Your task to perform on an android device: Open privacy settings Image 0: 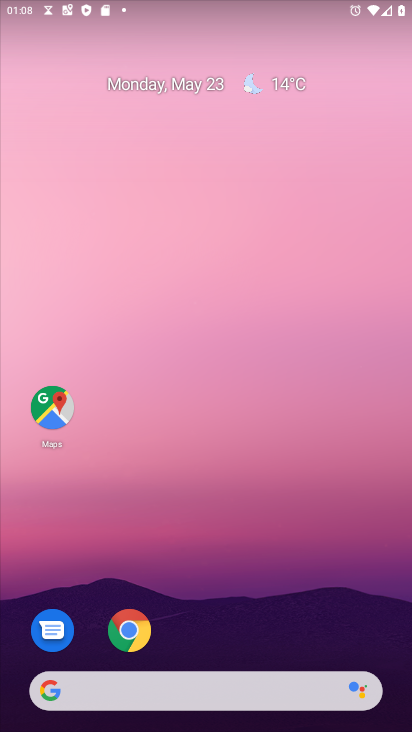
Step 0: drag from (317, 499) to (264, 11)
Your task to perform on an android device: Open privacy settings Image 1: 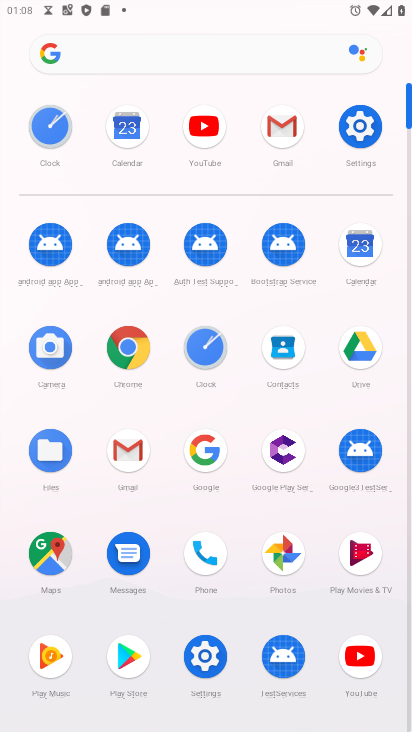
Step 1: click (374, 115)
Your task to perform on an android device: Open privacy settings Image 2: 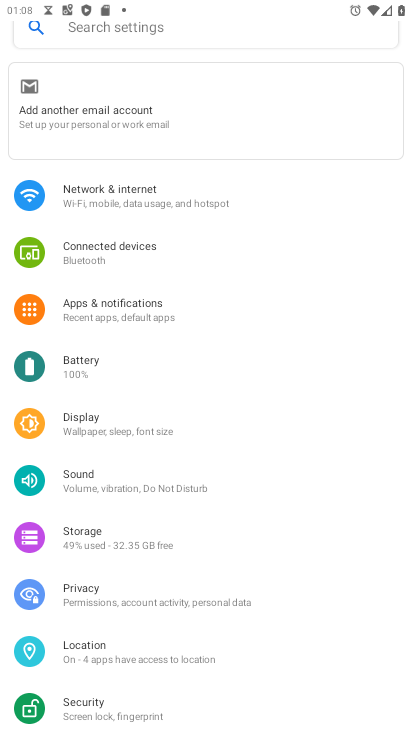
Step 2: click (205, 598)
Your task to perform on an android device: Open privacy settings Image 3: 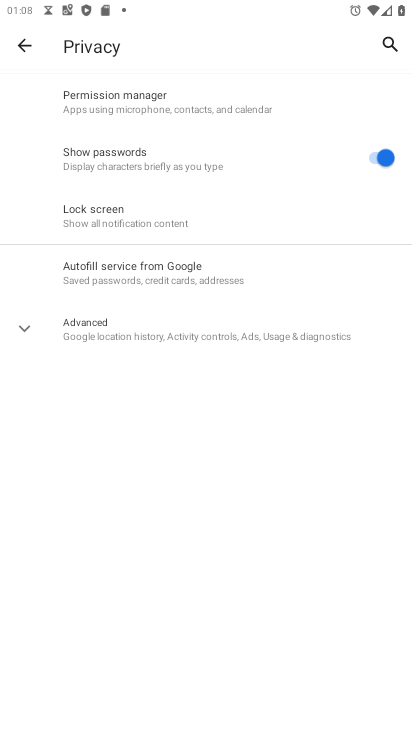
Step 3: task complete